Your task to perform on an android device: clear history in the chrome app Image 0: 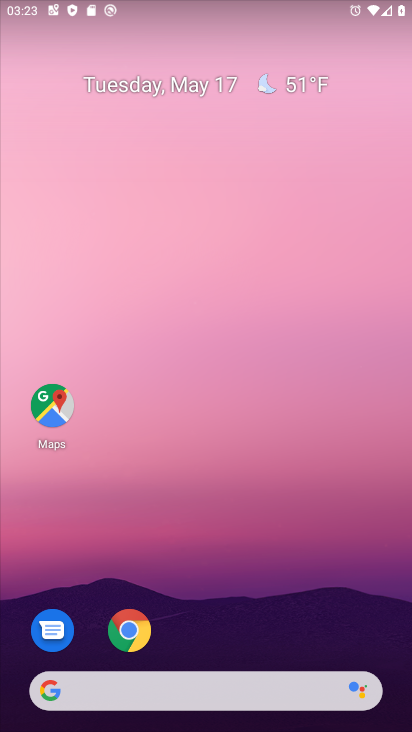
Step 0: click (135, 627)
Your task to perform on an android device: clear history in the chrome app Image 1: 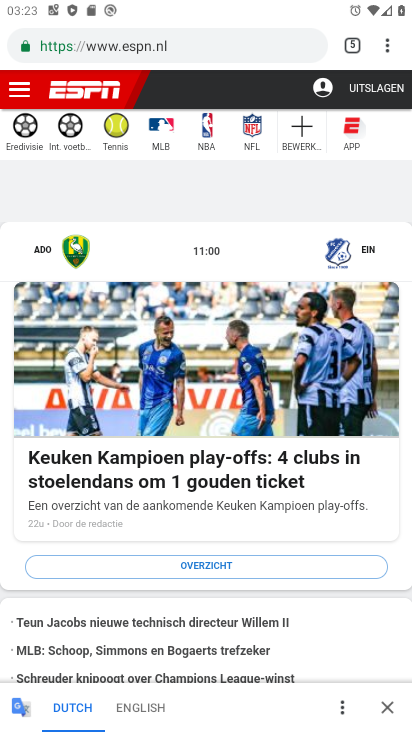
Step 1: drag from (385, 45) to (209, 251)
Your task to perform on an android device: clear history in the chrome app Image 2: 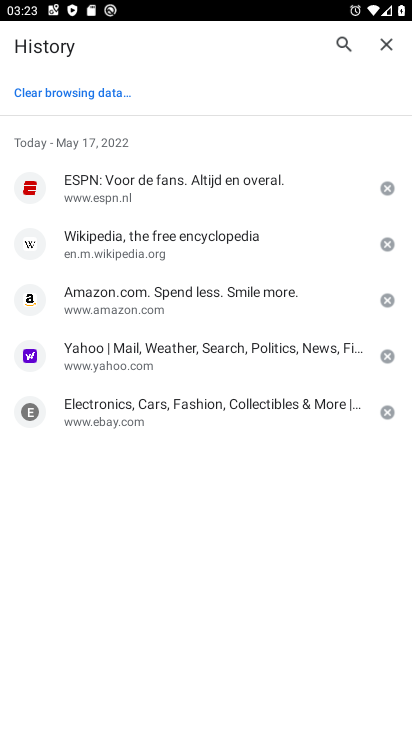
Step 2: click (60, 87)
Your task to perform on an android device: clear history in the chrome app Image 3: 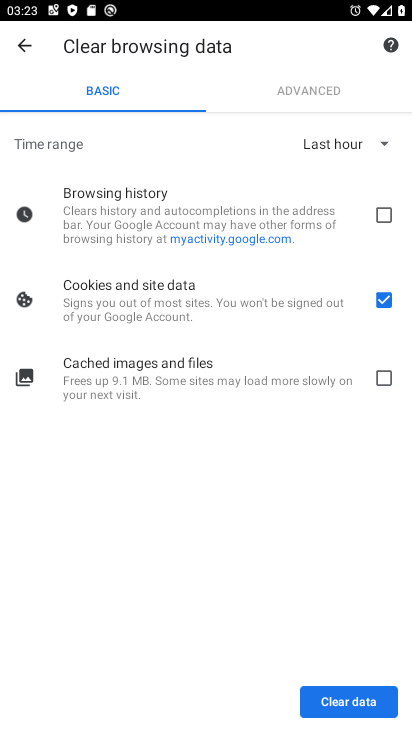
Step 3: click (381, 223)
Your task to perform on an android device: clear history in the chrome app Image 4: 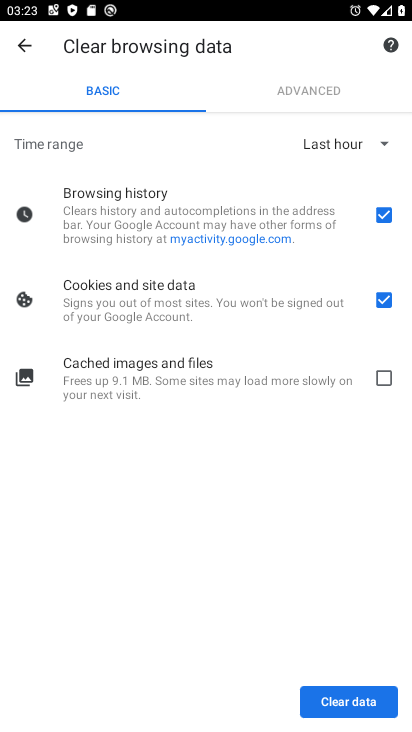
Step 4: click (371, 308)
Your task to perform on an android device: clear history in the chrome app Image 5: 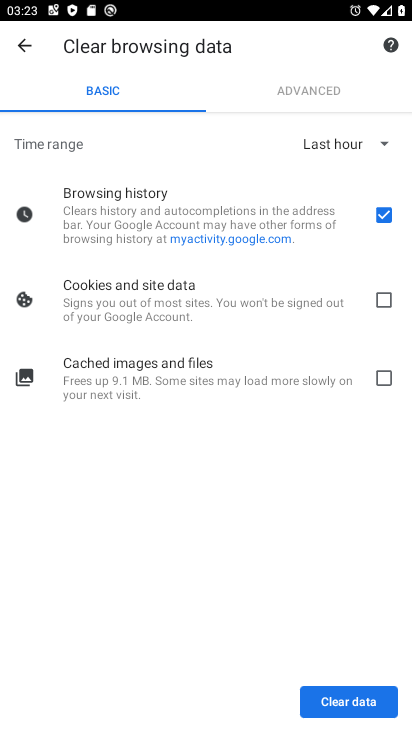
Step 5: click (352, 706)
Your task to perform on an android device: clear history in the chrome app Image 6: 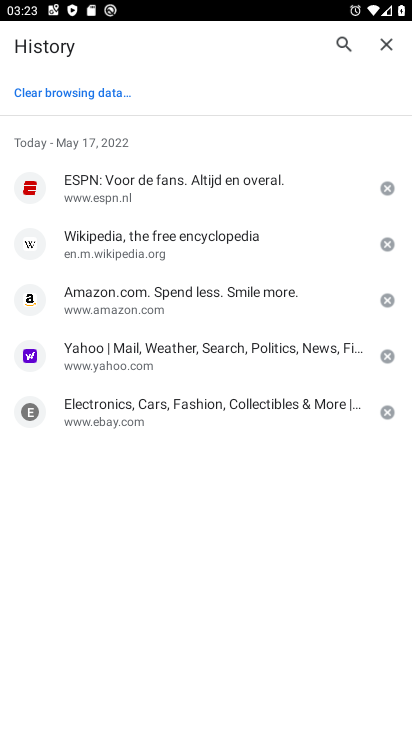
Step 6: task complete